Your task to perform on an android device: see creations saved in the google photos Image 0: 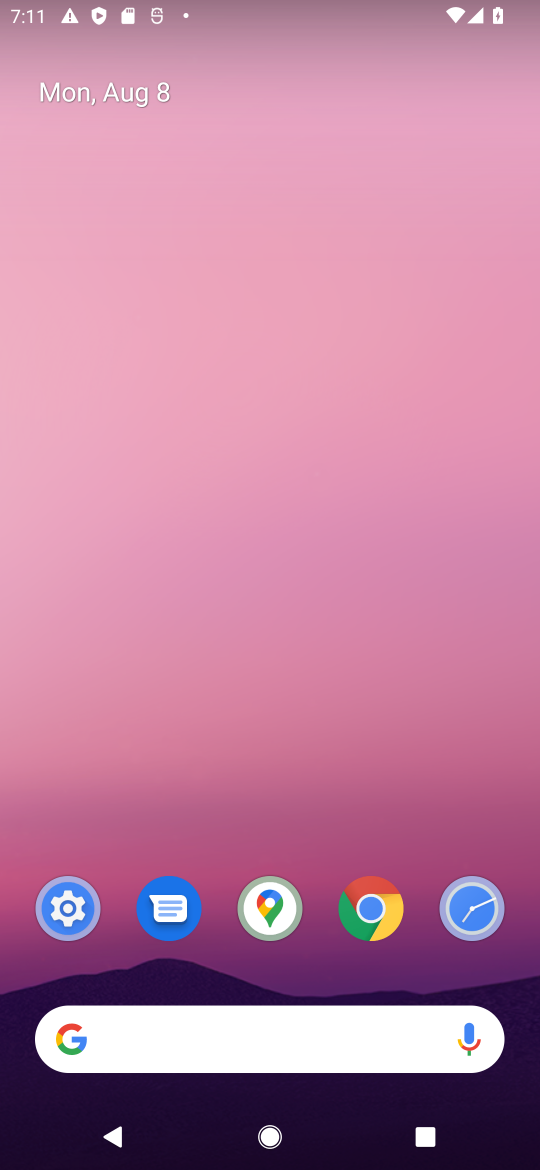
Step 0: drag from (250, 860) to (208, 142)
Your task to perform on an android device: see creations saved in the google photos Image 1: 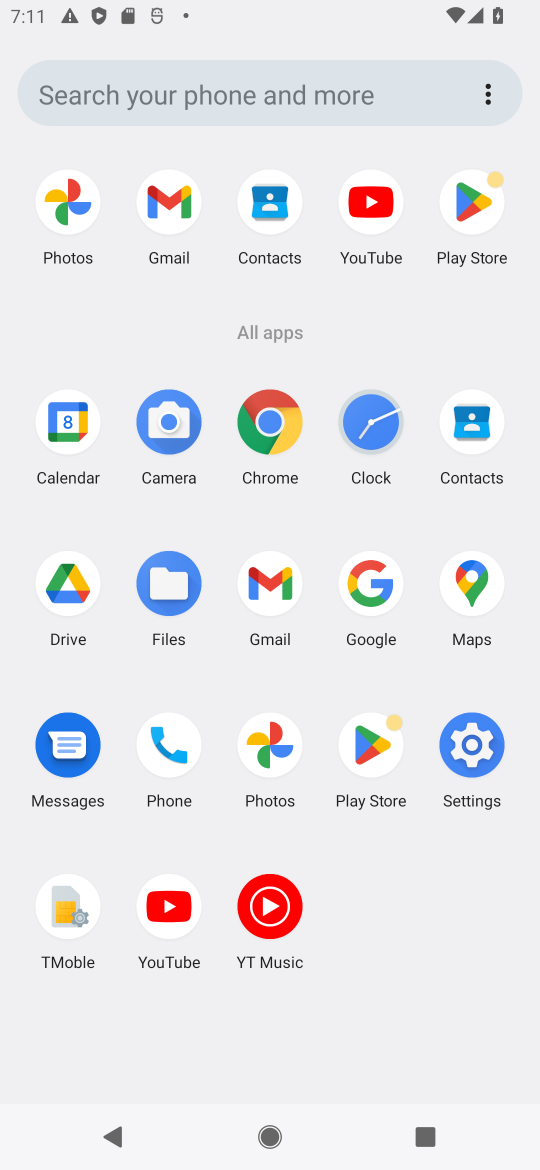
Step 1: click (82, 215)
Your task to perform on an android device: see creations saved in the google photos Image 2: 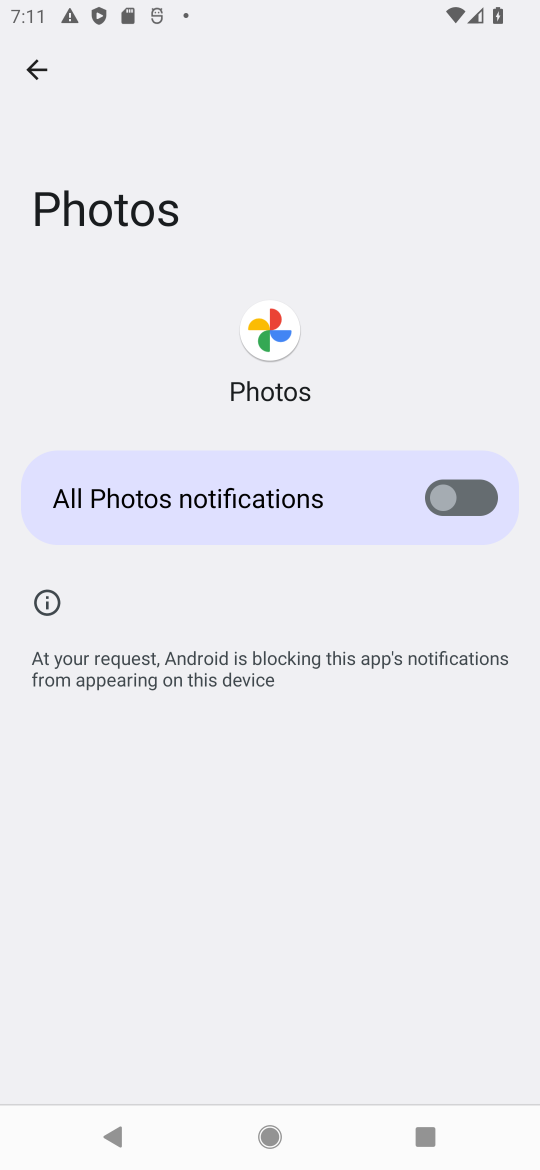
Step 2: click (273, 312)
Your task to perform on an android device: see creations saved in the google photos Image 3: 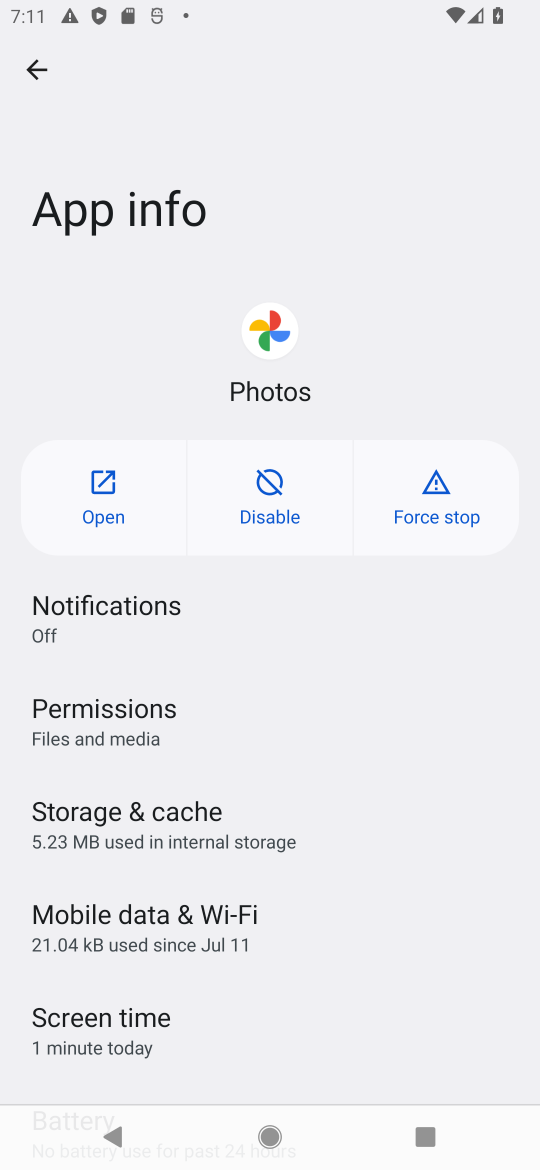
Step 3: click (93, 487)
Your task to perform on an android device: see creations saved in the google photos Image 4: 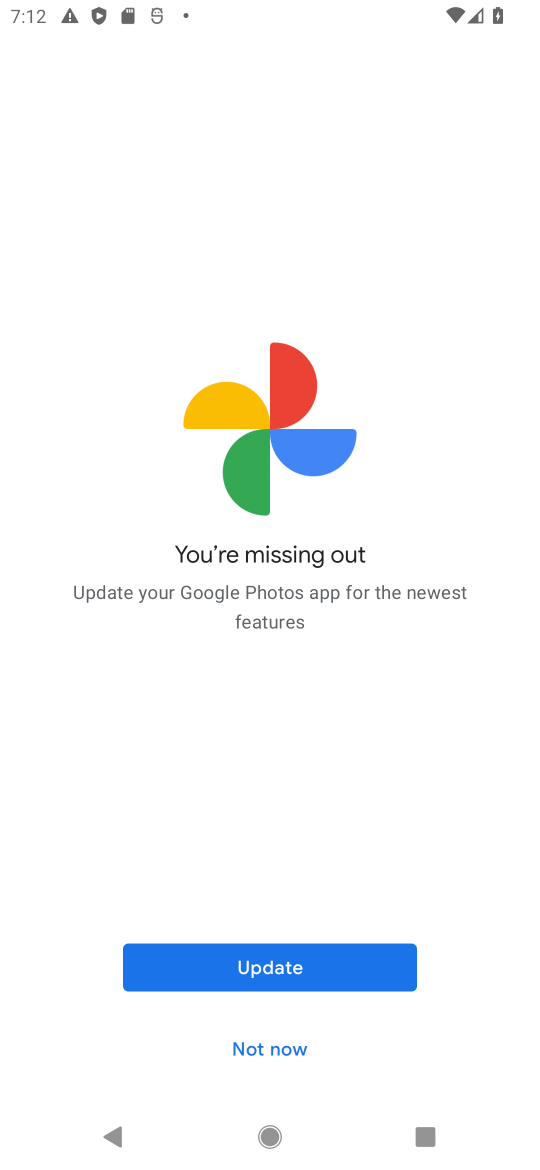
Step 4: click (265, 1053)
Your task to perform on an android device: see creations saved in the google photos Image 5: 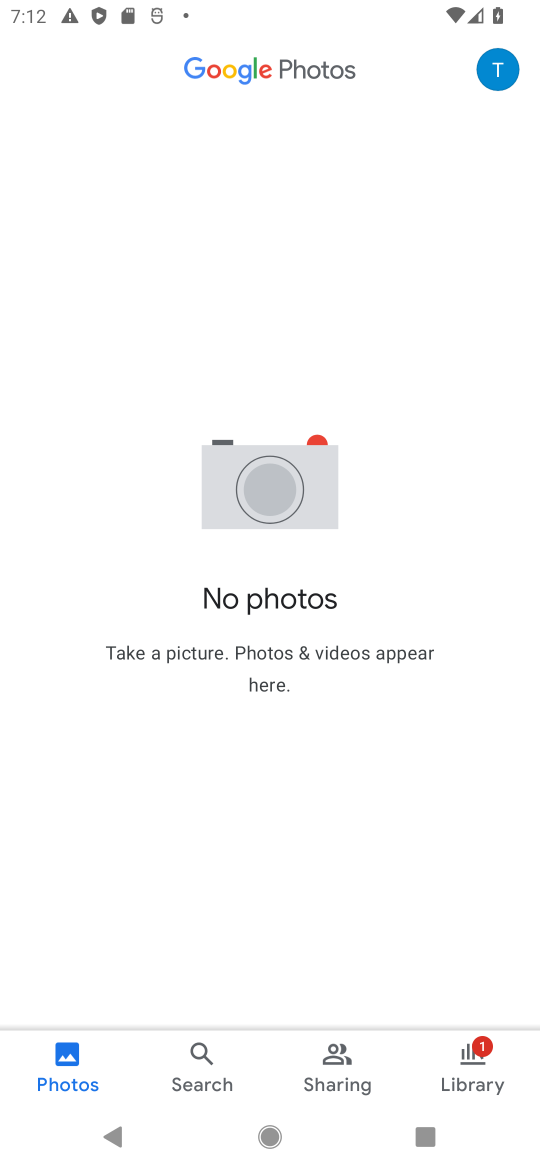
Step 5: click (227, 1068)
Your task to perform on an android device: see creations saved in the google photos Image 6: 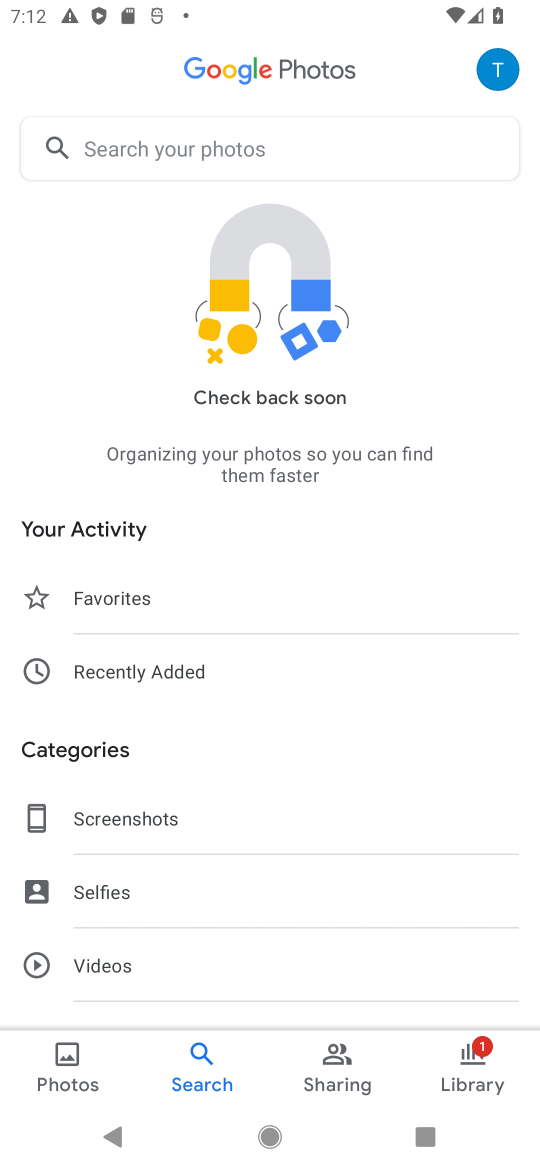
Step 6: drag from (164, 971) to (194, 390)
Your task to perform on an android device: see creations saved in the google photos Image 7: 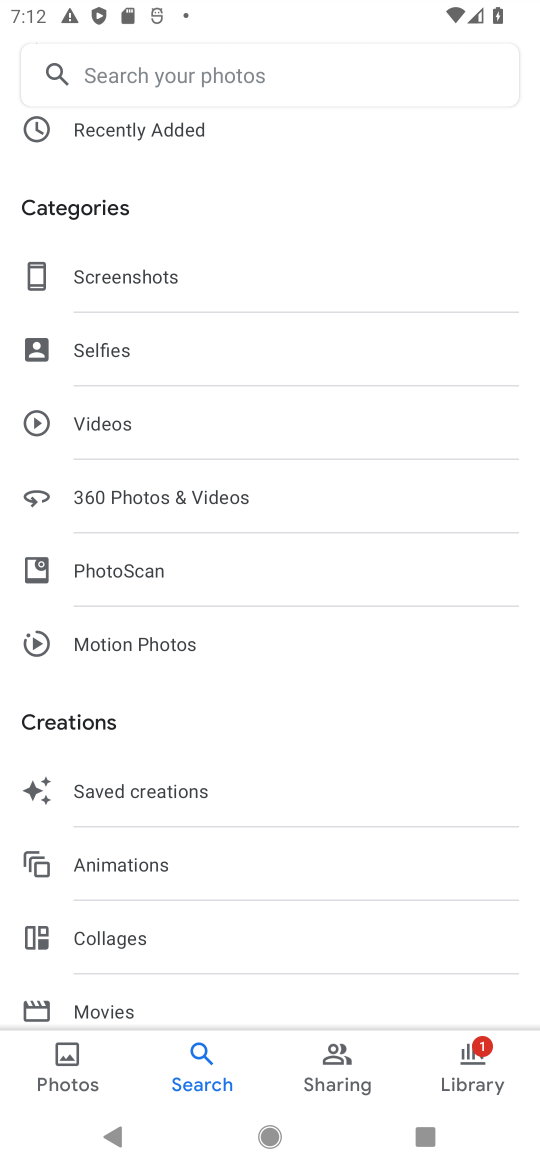
Step 7: drag from (187, 932) to (179, 282)
Your task to perform on an android device: see creations saved in the google photos Image 8: 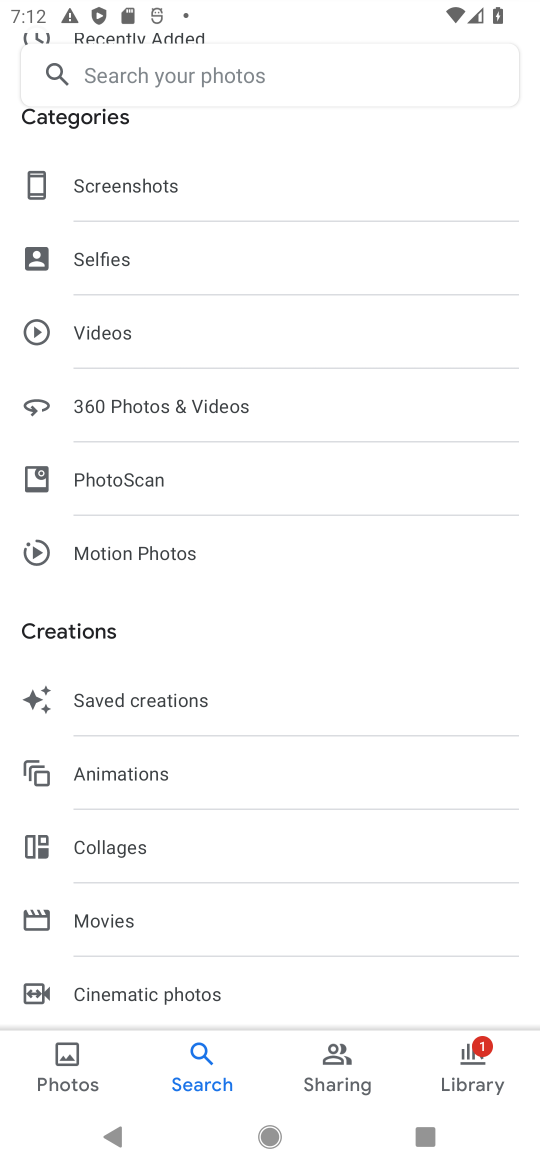
Step 8: drag from (158, 965) to (252, 38)
Your task to perform on an android device: see creations saved in the google photos Image 9: 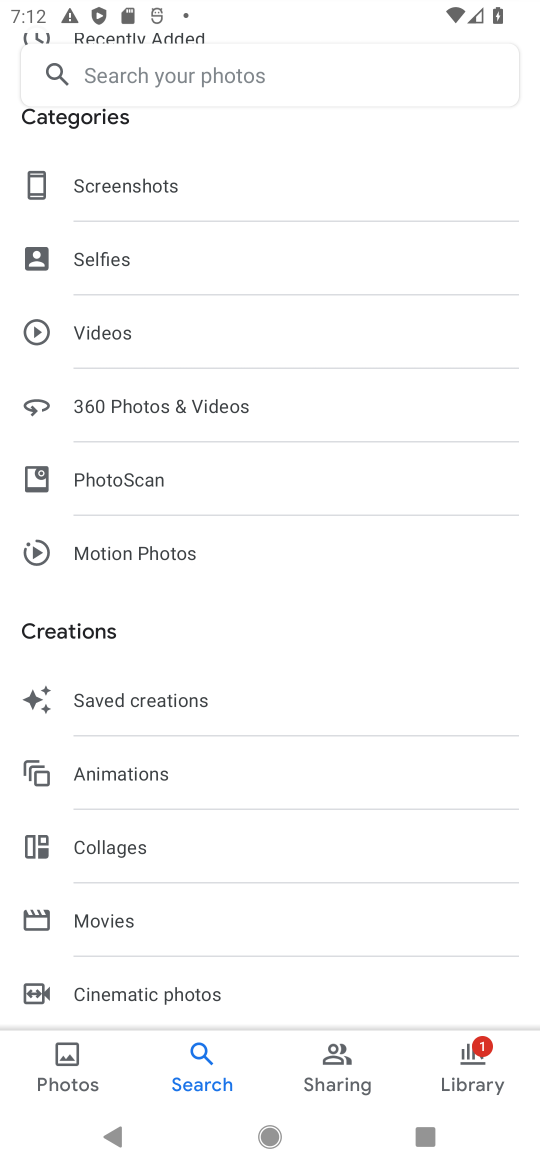
Step 9: click (355, 1073)
Your task to perform on an android device: see creations saved in the google photos Image 10: 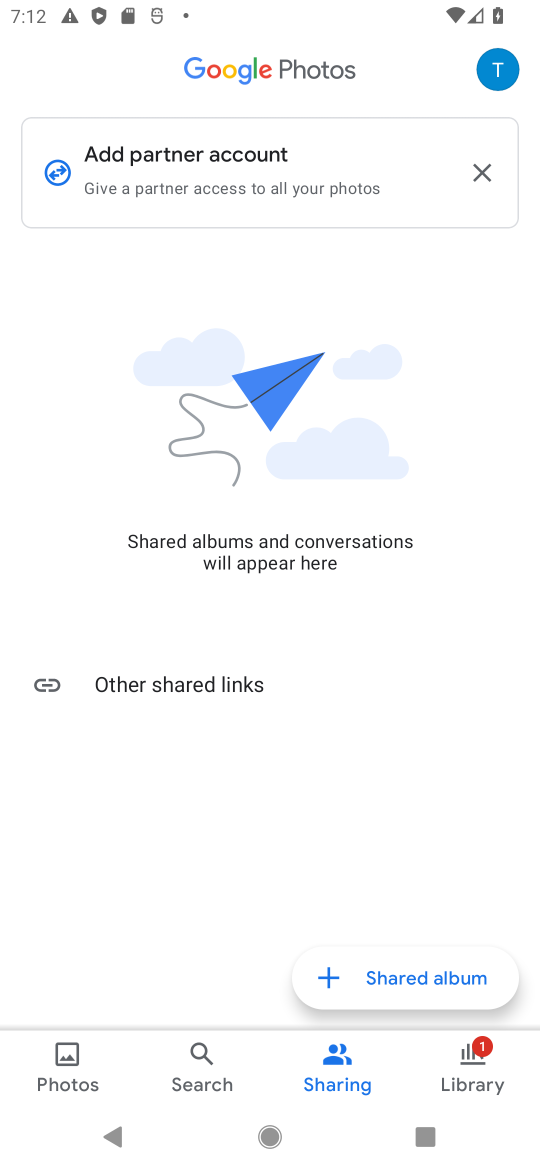
Step 10: click (451, 1057)
Your task to perform on an android device: see creations saved in the google photos Image 11: 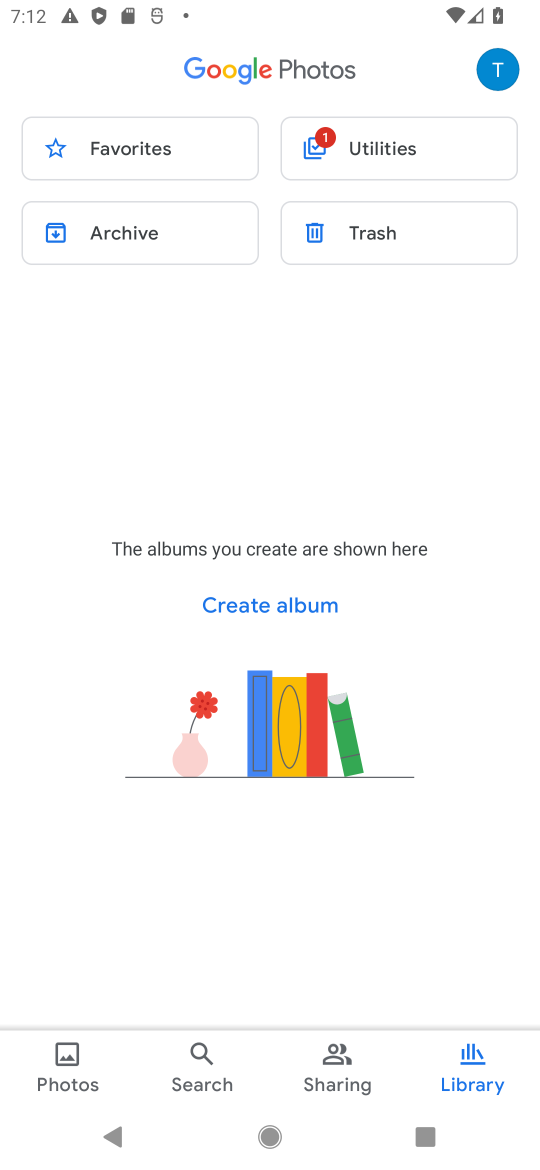
Step 11: task complete